Your task to perform on an android device: see tabs open on other devices in the chrome app Image 0: 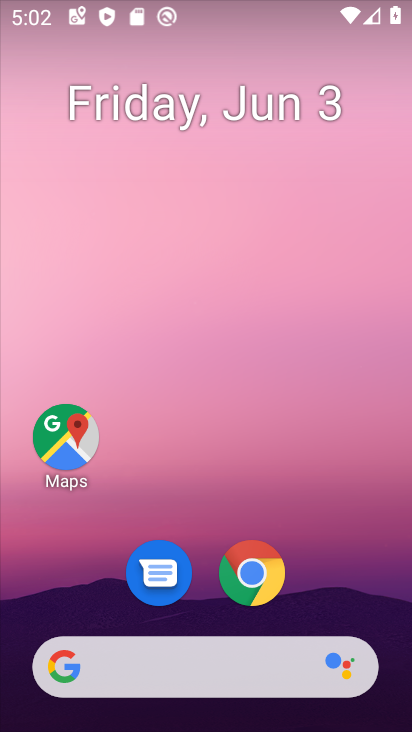
Step 0: drag from (213, 616) to (308, 258)
Your task to perform on an android device: see tabs open on other devices in the chrome app Image 1: 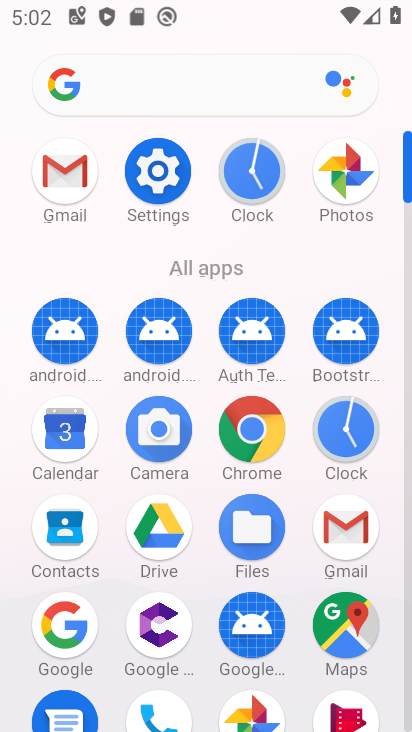
Step 1: click (270, 436)
Your task to perform on an android device: see tabs open on other devices in the chrome app Image 2: 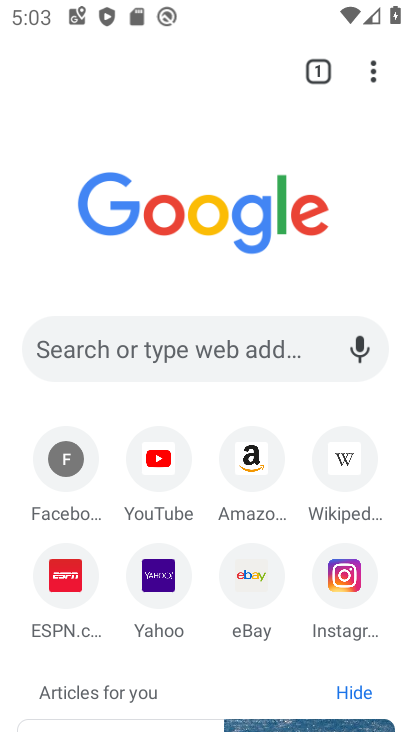
Step 2: click (374, 79)
Your task to perform on an android device: see tabs open on other devices in the chrome app Image 3: 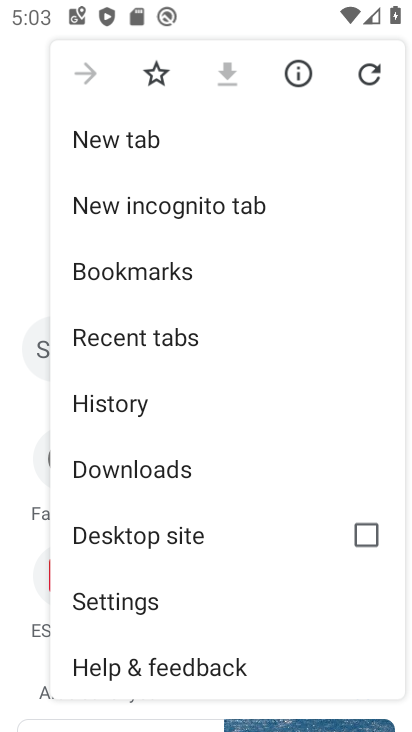
Step 3: click (145, 337)
Your task to perform on an android device: see tabs open on other devices in the chrome app Image 4: 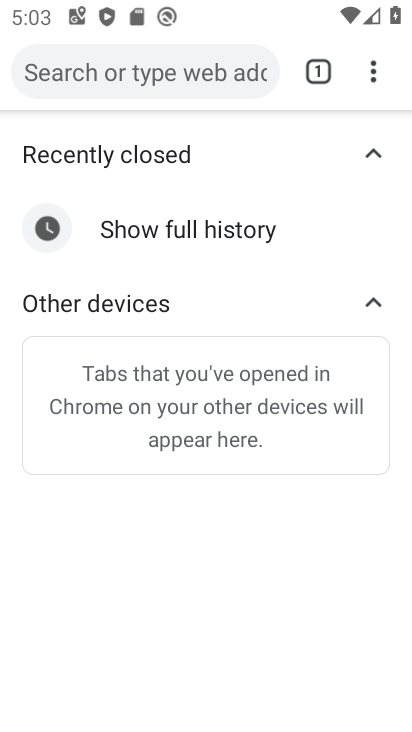
Step 4: task complete